Your task to perform on an android device: change text size in settings app Image 0: 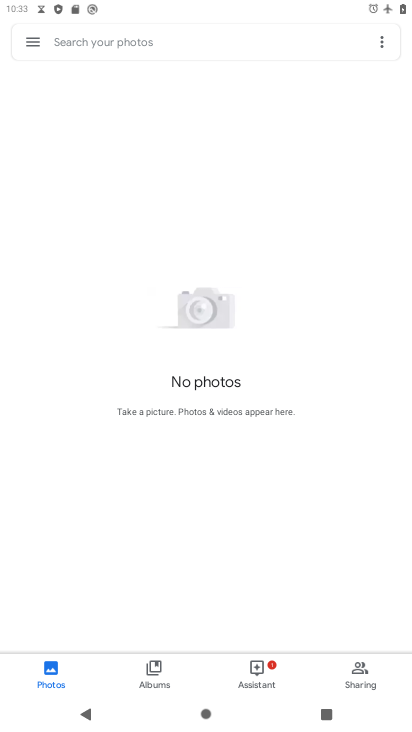
Step 0: press home button
Your task to perform on an android device: change text size in settings app Image 1: 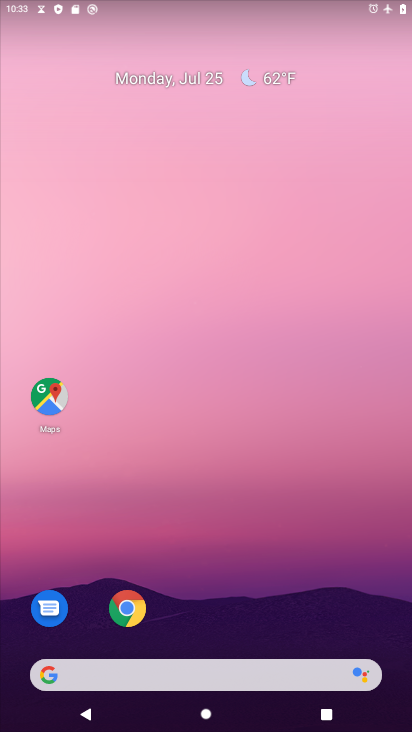
Step 1: drag from (159, 679) to (223, 126)
Your task to perform on an android device: change text size in settings app Image 2: 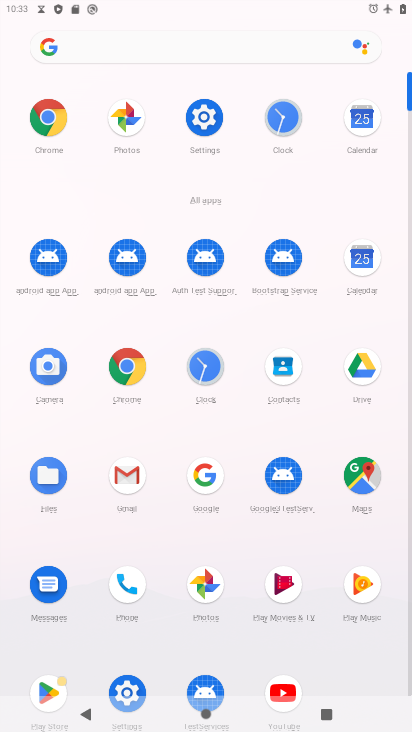
Step 2: click (204, 116)
Your task to perform on an android device: change text size in settings app Image 3: 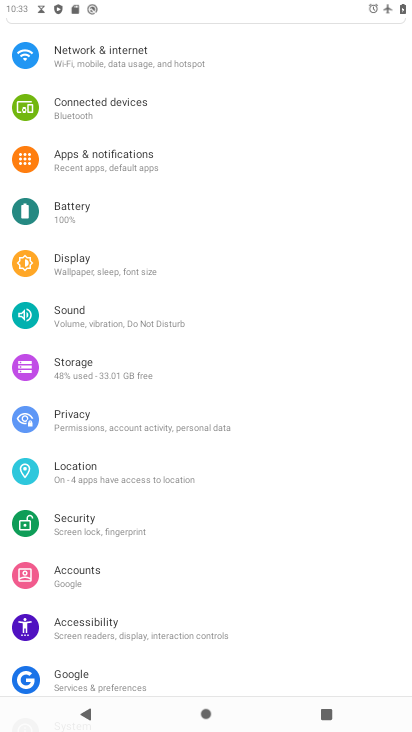
Step 3: click (94, 636)
Your task to perform on an android device: change text size in settings app Image 4: 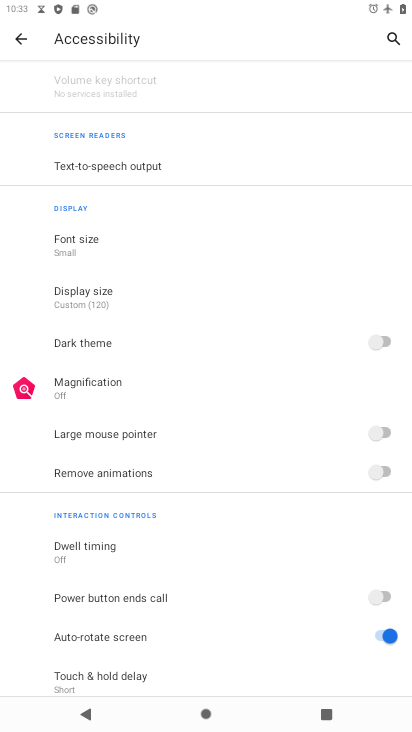
Step 4: click (79, 251)
Your task to perform on an android device: change text size in settings app Image 5: 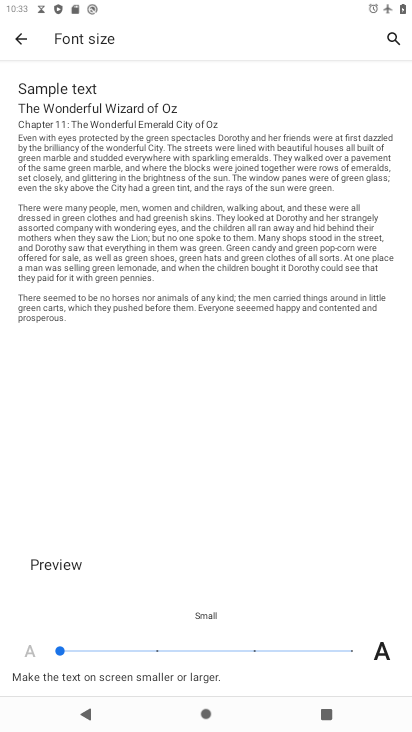
Step 5: click (351, 653)
Your task to perform on an android device: change text size in settings app Image 6: 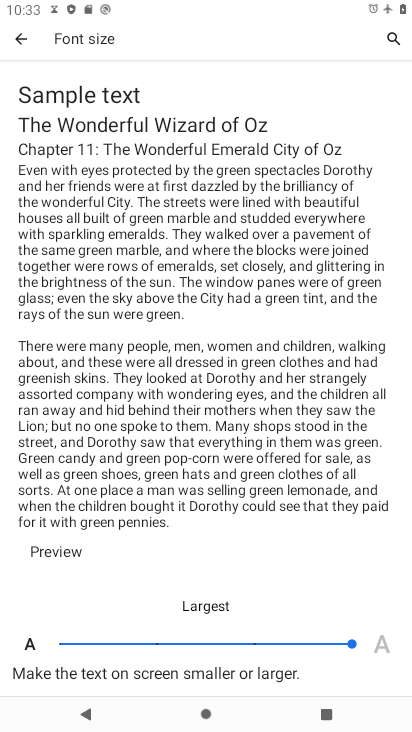
Step 6: task complete